Your task to perform on an android device: empty trash in the gmail app Image 0: 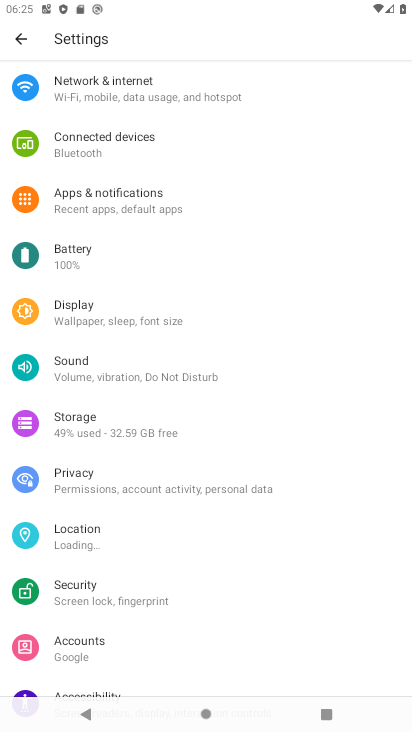
Step 0: press home button
Your task to perform on an android device: empty trash in the gmail app Image 1: 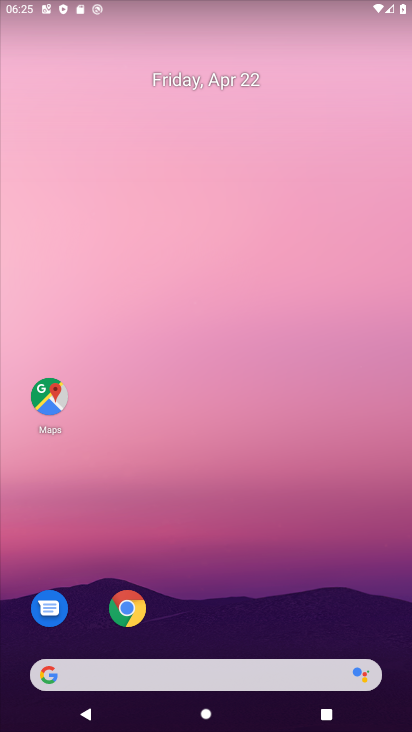
Step 1: drag from (250, 469) to (226, 226)
Your task to perform on an android device: empty trash in the gmail app Image 2: 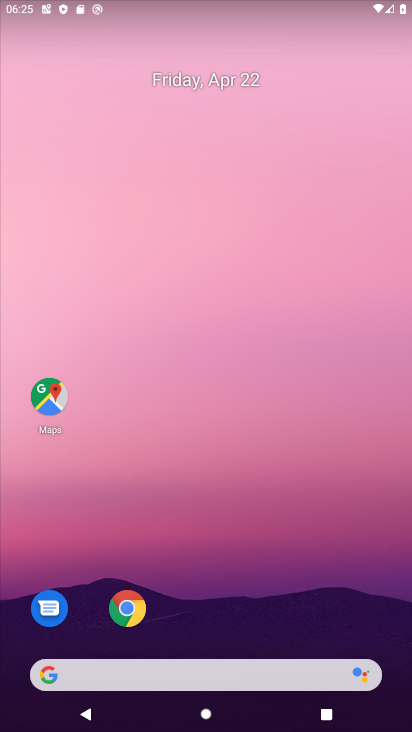
Step 2: drag from (248, 550) to (318, 116)
Your task to perform on an android device: empty trash in the gmail app Image 3: 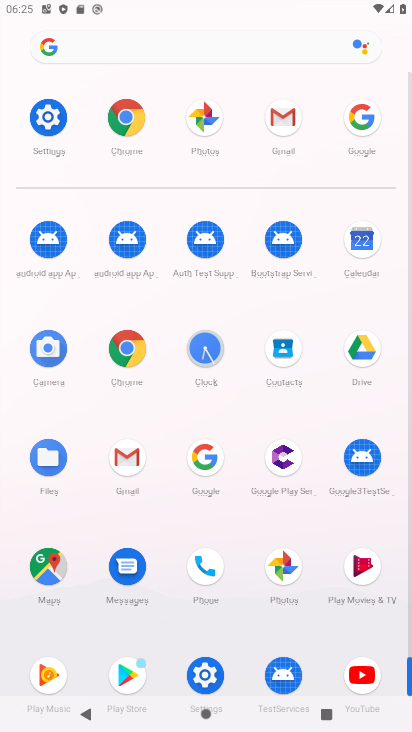
Step 3: click (283, 122)
Your task to perform on an android device: empty trash in the gmail app Image 4: 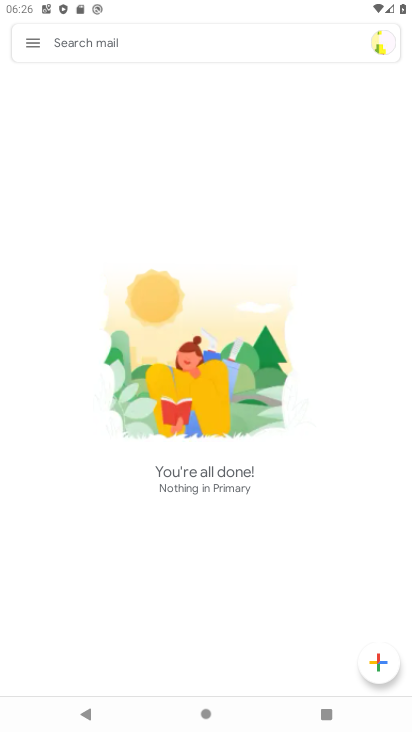
Step 4: click (27, 40)
Your task to perform on an android device: empty trash in the gmail app Image 5: 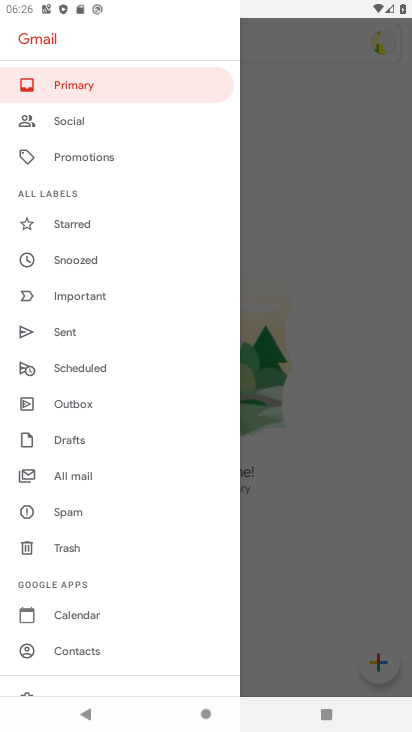
Step 5: click (68, 548)
Your task to perform on an android device: empty trash in the gmail app Image 6: 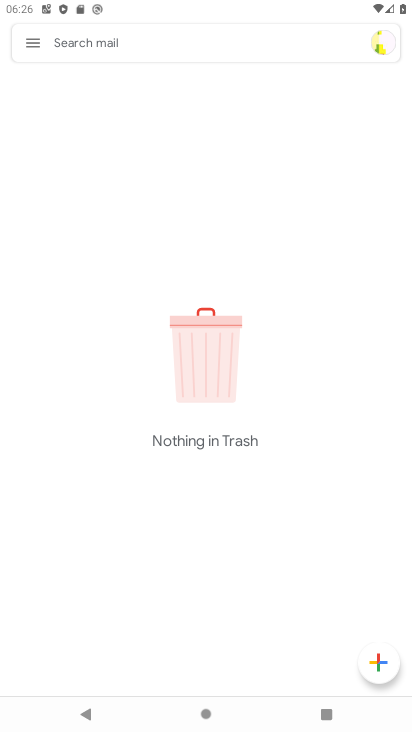
Step 6: task complete